Your task to perform on an android device: change the clock display to show seconds Image 0: 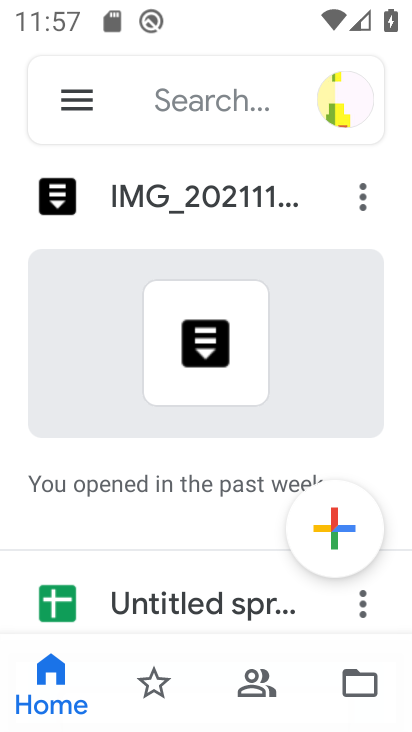
Step 0: press home button
Your task to perform on an android device: change the clock display to show seconds Image 1: 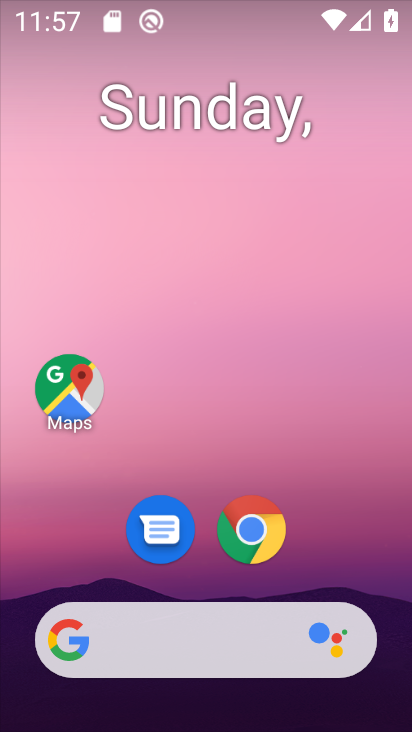
Step 1: drag from (186, 608) to (218, 140)
Your task to perform on an android device: change the clock display to show seconds Image 2: 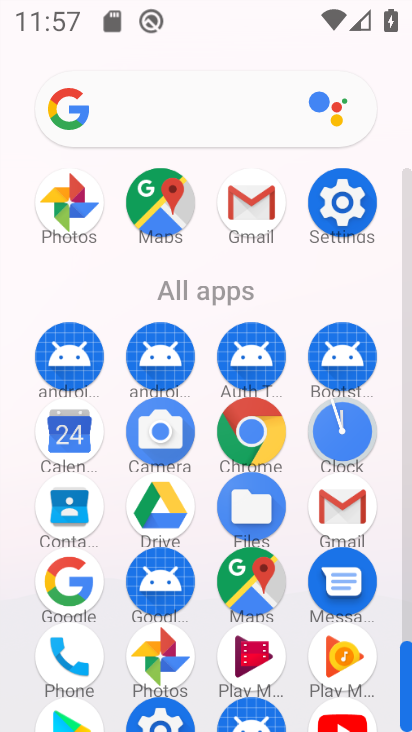
Step 2: click (339, 424)
Your task to perform on an android device: change the clock display to show seconds Image 3: 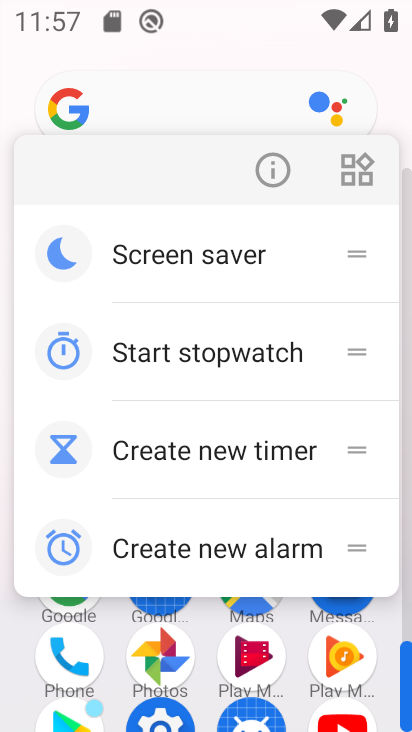
Step 3: click (341, 604)
Your task to perform on an android device: change the clock display to show seconds Image 4: 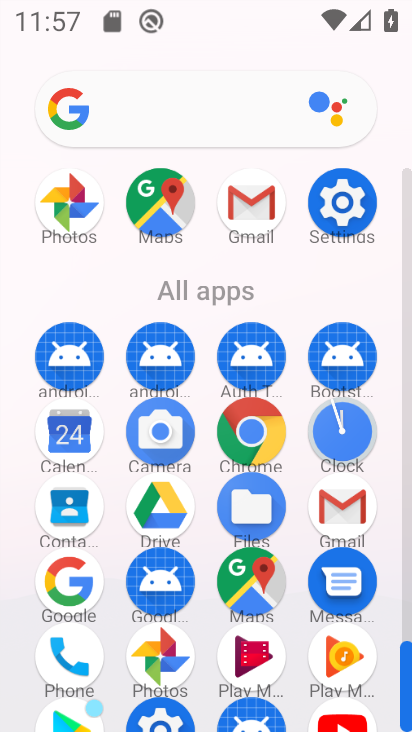
Step 4: click (337, 434)
Your task to perform on an android device: change the clock display to show seconds Image 5: 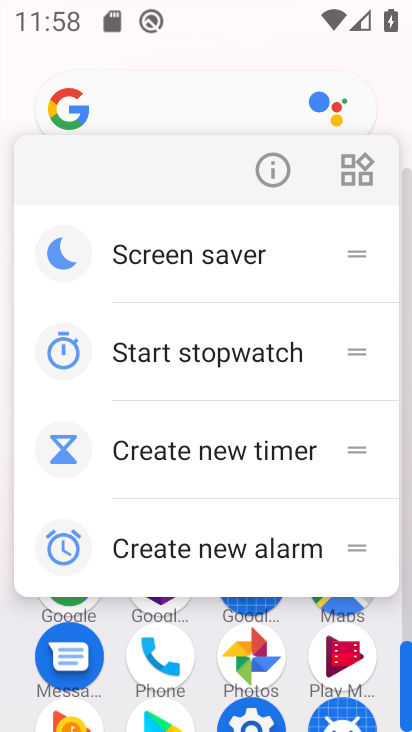
Step 5: press back button
Your task to perform on an android device: change the clock display to show seconds Image 6: 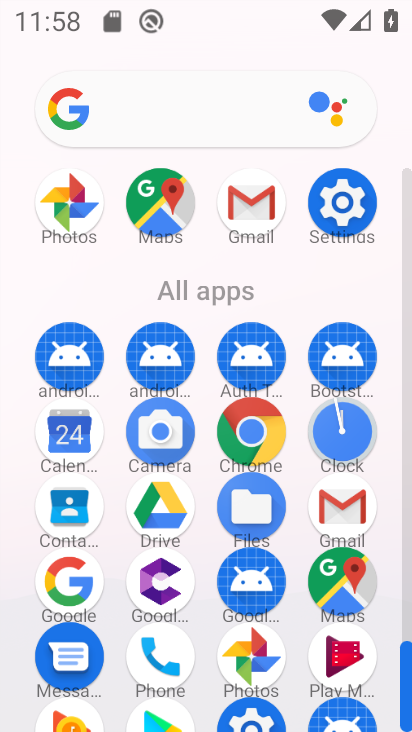
Step 6: click (360, 439)
Your task to perform on an android device: change the clock display to show seconds Image 7: 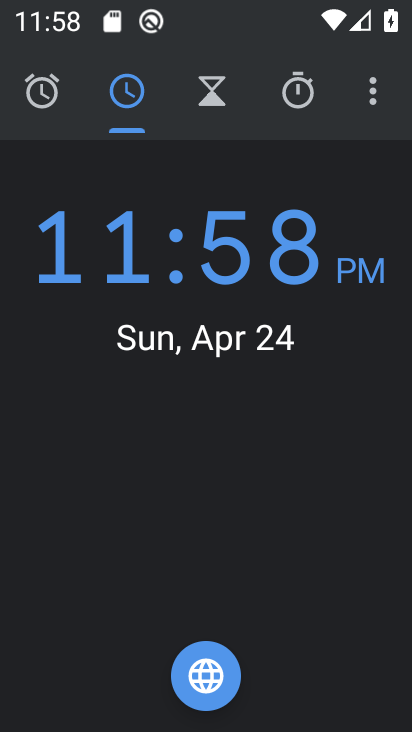
Step 7: click (374, 112)
Your task to perform on an android device: change the clock display to show seconds Image 8: 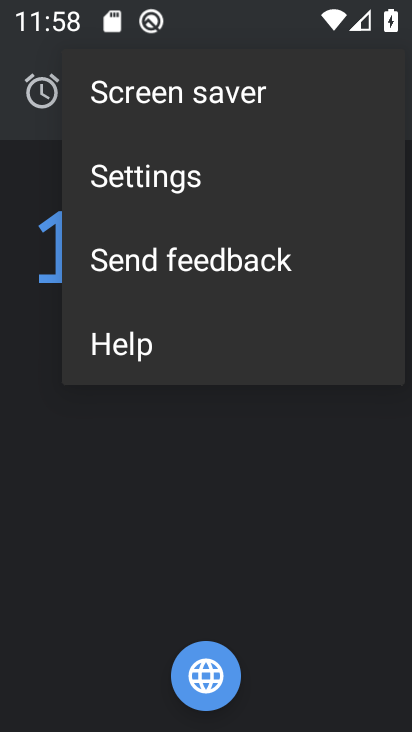
Step 8: click (196, 167)
Your task to perform on an android device: change the clock display to show seconds Image 9: 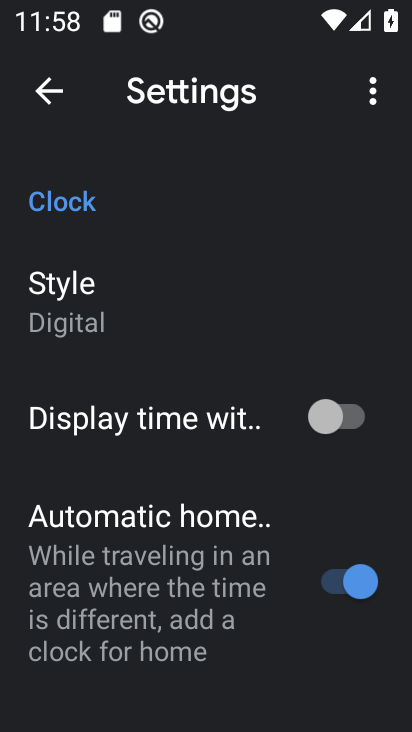
Step 9: click (332, 407)
Your task to perform on an android device: change the clock display to show seconds Image 10: 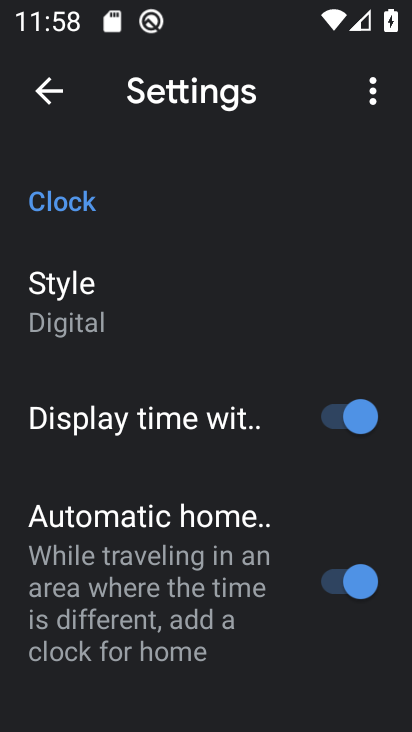
Step 10: task complete